Your task to perform on an android device: Set the phone to "Do not disturb". Image 0: 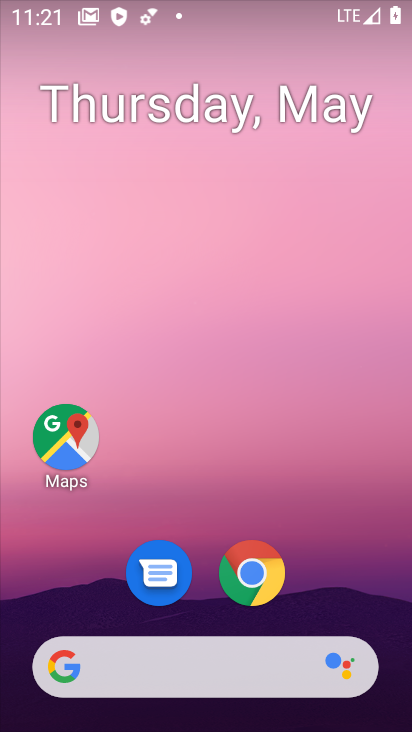
Step 0: drag from (216, 515) to (224, 79)
Your task to perform on an android device: Set the phone to "Do not disturb". Image 1: 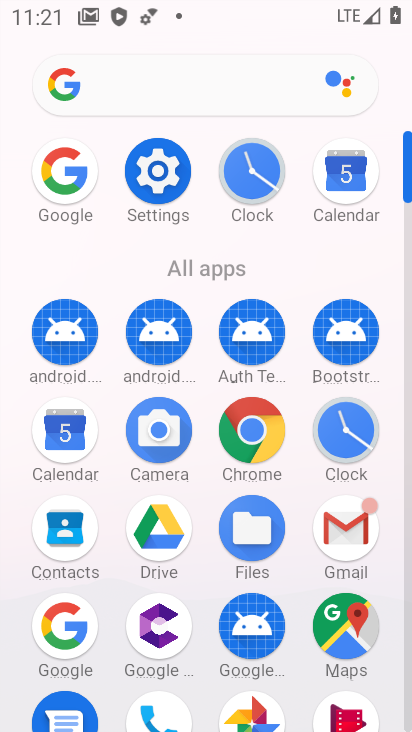
Step 1: click (159, 168)
Your task to perform on an android device: Set the phone to "Do not disturb". Image 2: 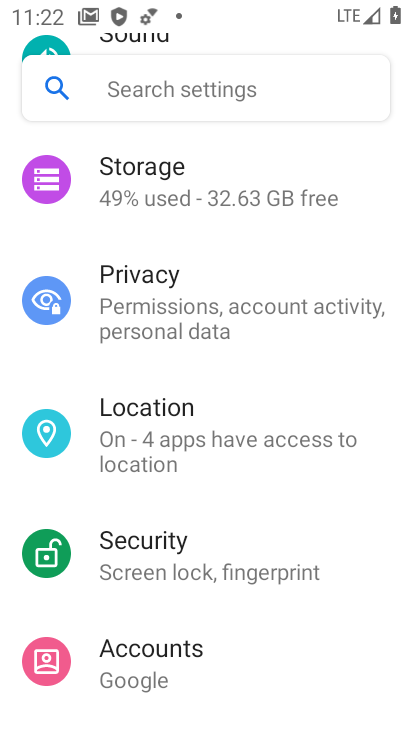
Step 2: drag from (188, 504) to (222, 397)
Your task to perform on an android device: Set the phone to "Do not disturb". Image 3: 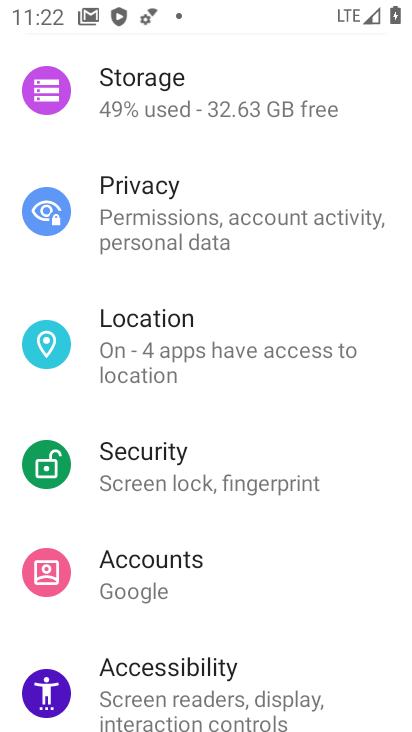
Step 3: drag from (194, 545) to (238, 427)
Your task to perform on an android device: Set the phone to "Do not disturb". Image 4: 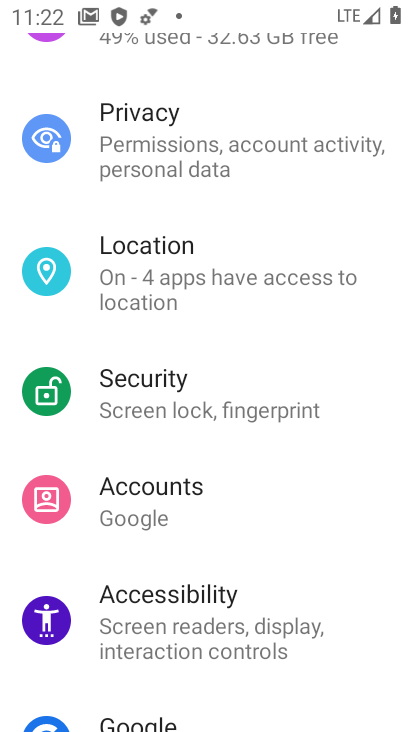
Step 4: drag from (185, 549) to (231, 458)
Your task to perform on an android device: Set the phone to "Do not disturb". Image 5: 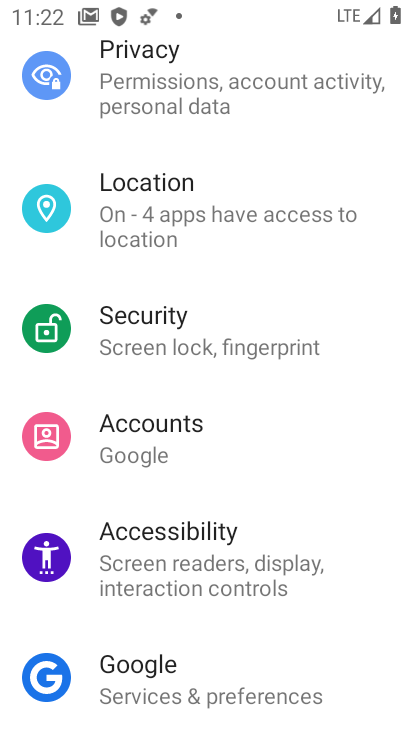
Step 5: drag from (175, 605) to (243, 480)
Your task to perform on an android device: Set the phone to "Do not disturb". Image 6: 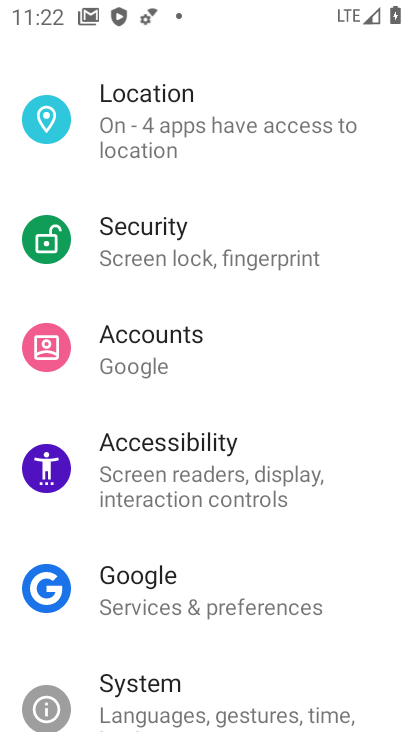
Step 6: drag from (259, 377) to (293, 528)
Your task to perform on an android device: Set the phone to "Do not disturb". Image 7: 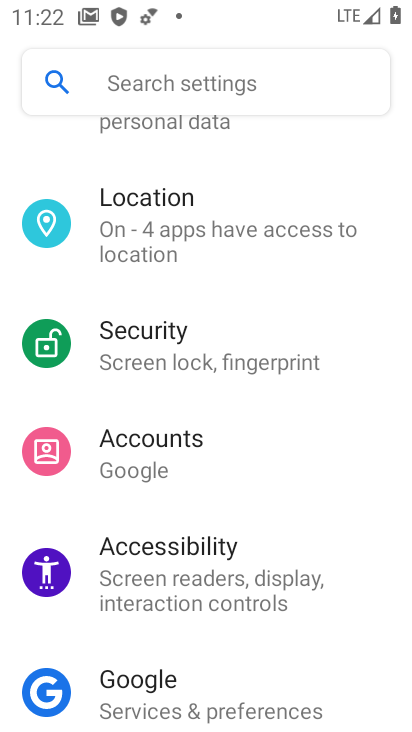
Step 7: drag from (234, 312) to (258, 429)
Your task to perform on an android device: Set the phone to "Do not disturb". Image 8: 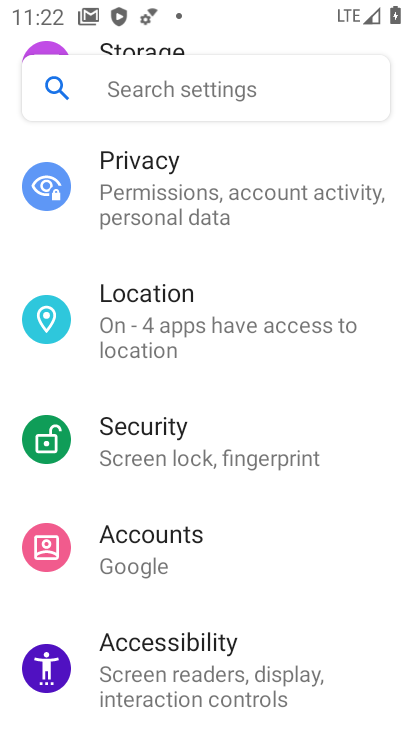
Step 8: drag from (235, 276) to (256, 378)
Your task to perform on an android device: Set the phone to "Do not disturb". Image 9: 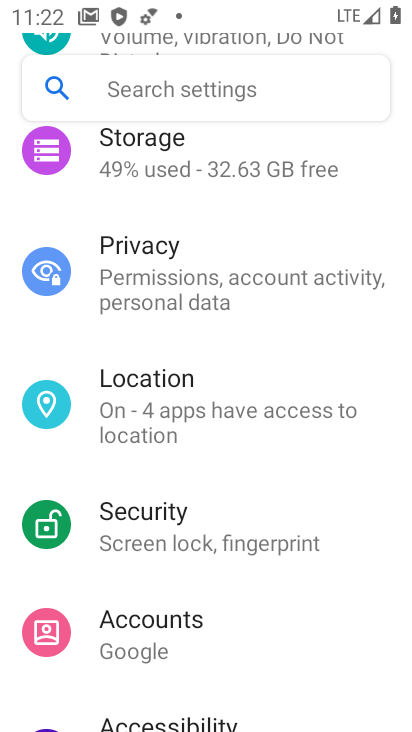
Step 9: drag from (241, 245) to (253, 377)
Your task to perform on an android device: Set the phone to "Do not disturb". Image 10: 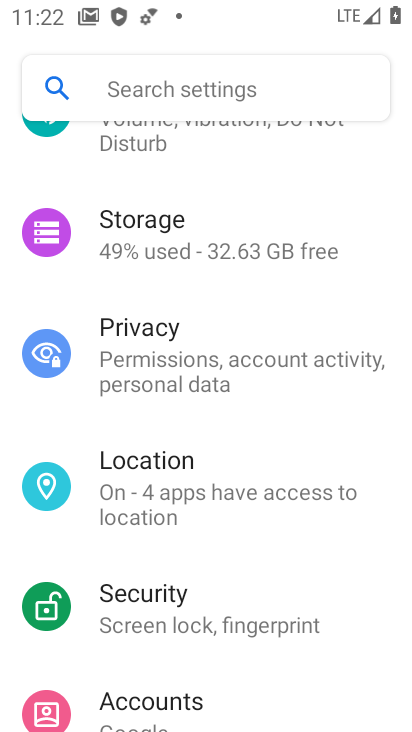
Step 10: drag from (226, 220) to (264, 349)
Your task to perform on an android device: Set the phone to "Do not disturb". Image 11: 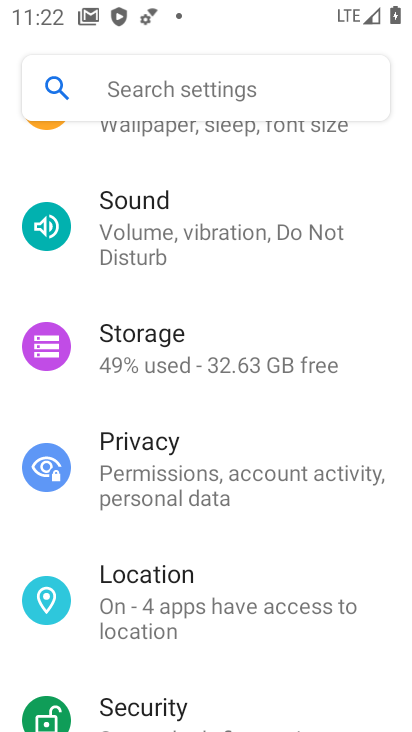
Step 11: click (245, 237)
Your task to perform on an android device: Set the phone to "Do not disturb". Image 12: 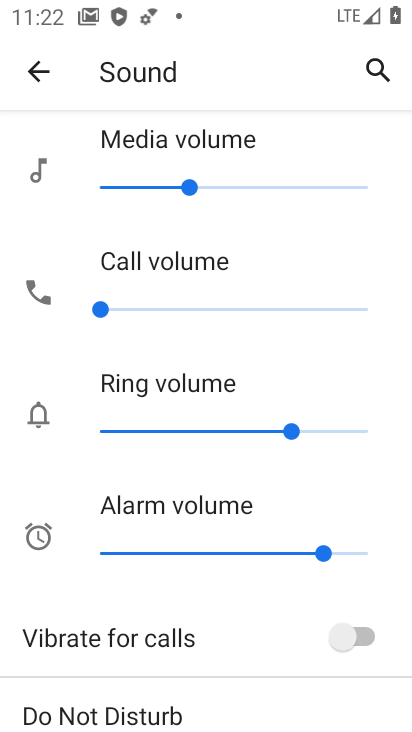
Step 12: drag from (200, 615) to (233, 453)
Your task to perform on an android device: Set the phone to "Do not disturb". Image 13: 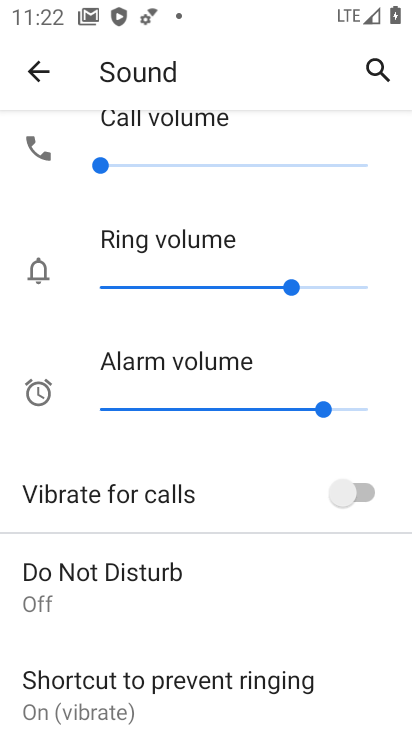
Step 13: click (102, 590)
Your task to perform on an android device: Set the phone to "Do not disturb". Image 14: 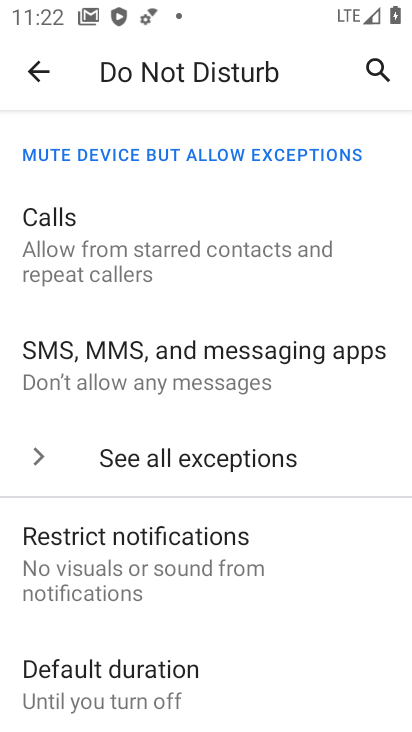
Step 14: drag from (175, 623) to (268, 401)
Your task to perform on an android device: Set the phone to "Do not disturb". Image 15: 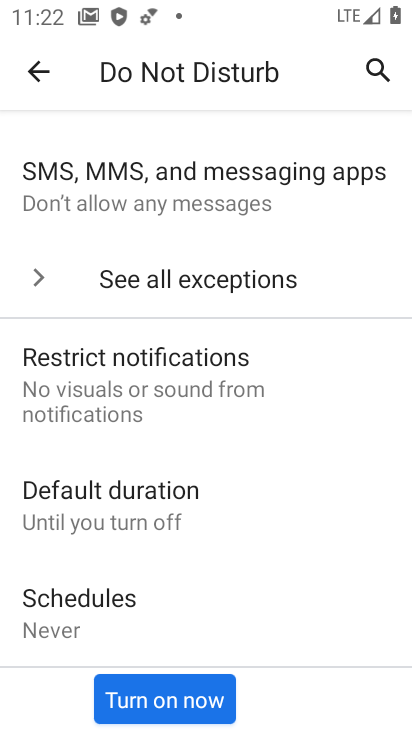
Step 15: click (177, 682)
Your task to perform on an android device: Set the phone to "Do not disturb". Image 16: 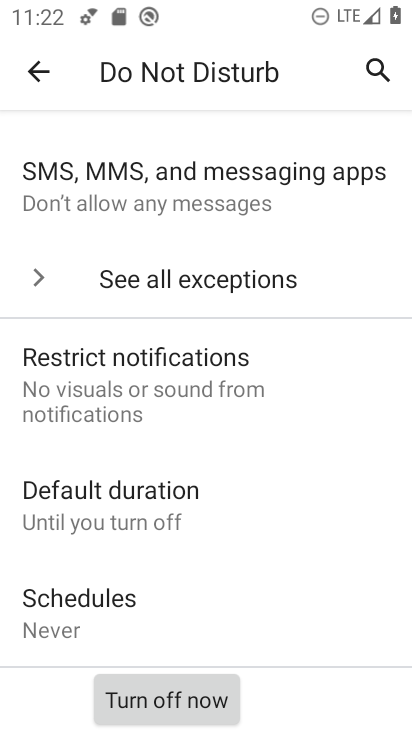
Step 16: task complete